Your task to perform on an android device: delete the emails in spam in the gmail app Image 0: 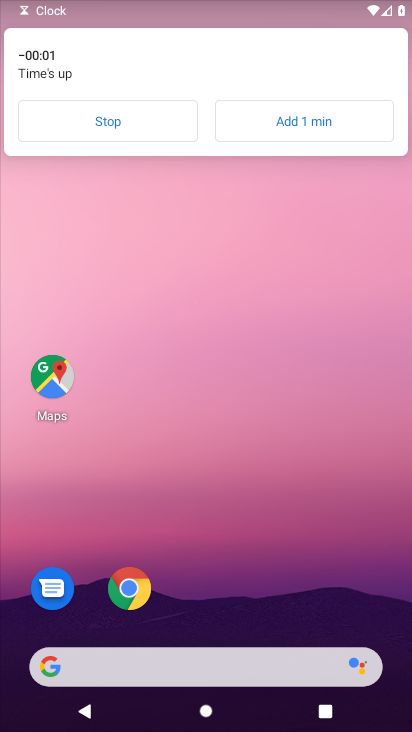
Step 0: drag from (186, 593) to (229, 274)
Your task to perform on an android device: delete the emails in spam in the gmail app Image 1: 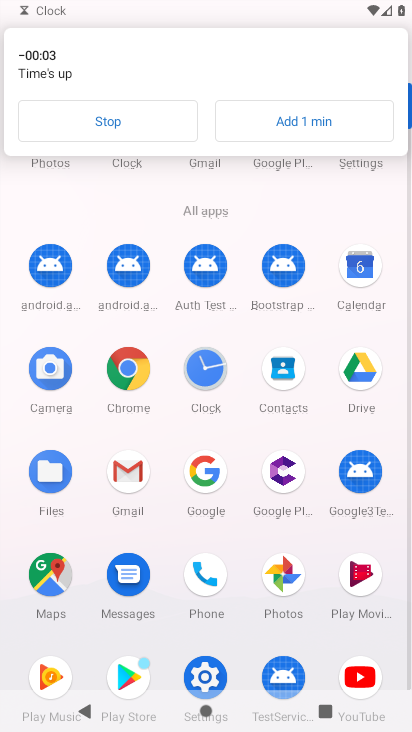
Step 1: click (147, 137)
Your task to perform on an android device: delete the emails in spam in the gmail app Image 2: 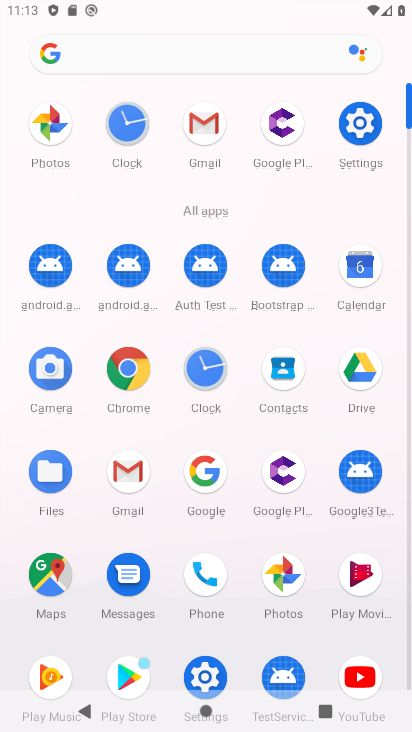
Step 2: click (119, 472)
Your task to perform on an android device: delete the emails in spam in the gmail app Image 3: 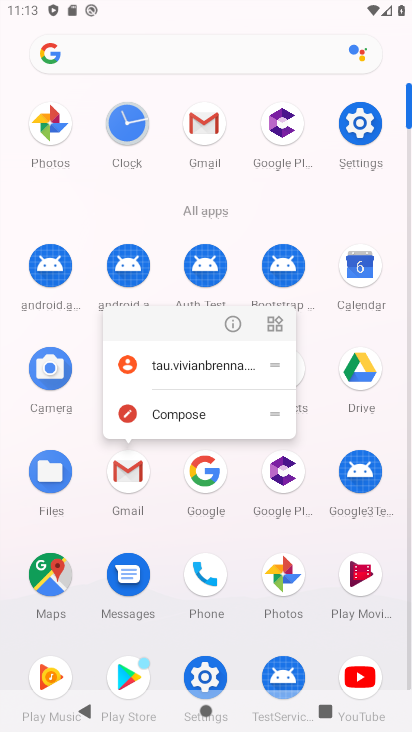
Step 3: click (230, 323)
Your task to perform on an android device: delete the emails in spam in the gmail app Image 4: 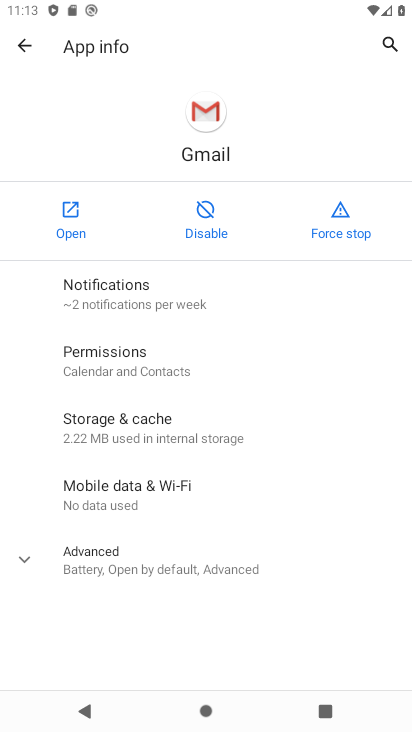
Step 4: click (67, 215)
Your task to perform on an android device: delete the emails in spam in the gmail app Image 5: 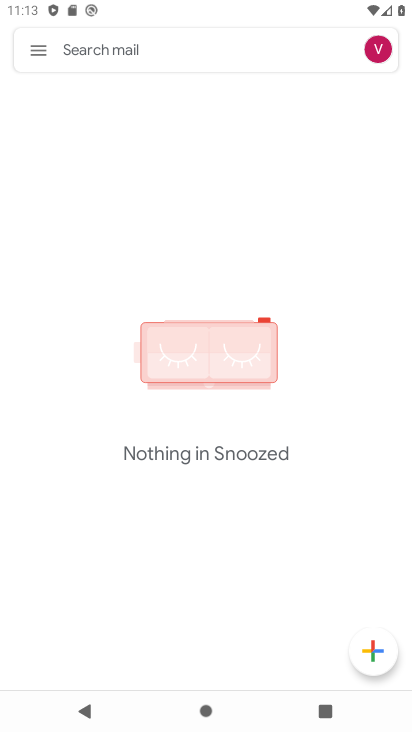
Step 5: click (42, 52)
Your task to perform on an android device: delete the emails in spam in the gmail app Image 6: 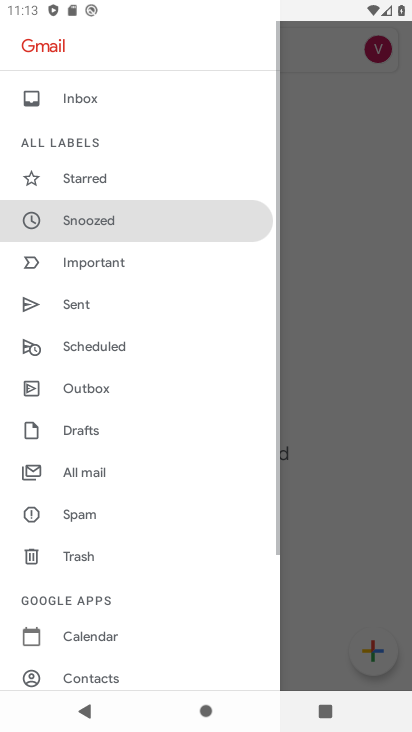
Step 6: drag from (129, 613) to (269, 185)
Your task to perform on an android device: delete the emails in spam in the gmail app Image 7: 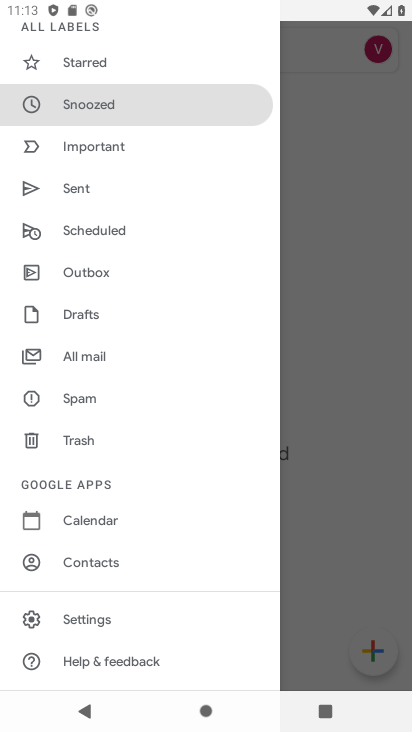
Step 7: click (94, 404)
Your task to perform on an android device: delete the emails in spam in the gmail app Image 8: 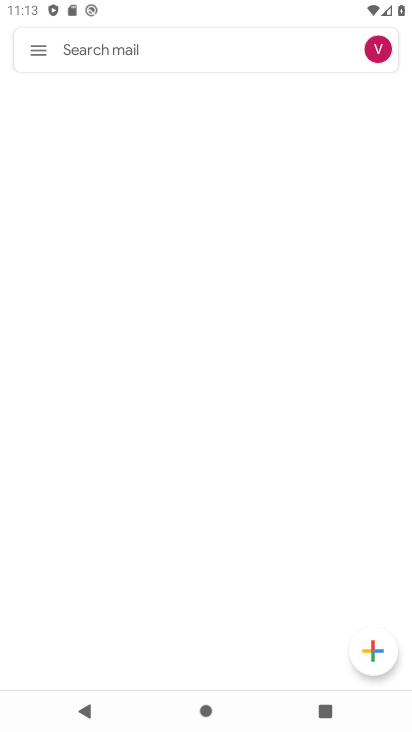
Step 8: drag from (131, 561) to (204, 183)
Your task to perform on an android device: delete the emails in spam in the gmail app Image 9: 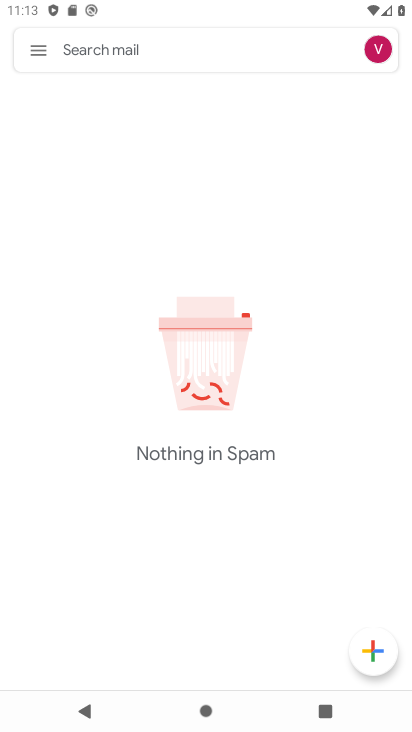
Step 9: drag from (228, 527) to (242, 402)
Your task to perform on an android device: delete the emails in spam in the gmail app Image 10: 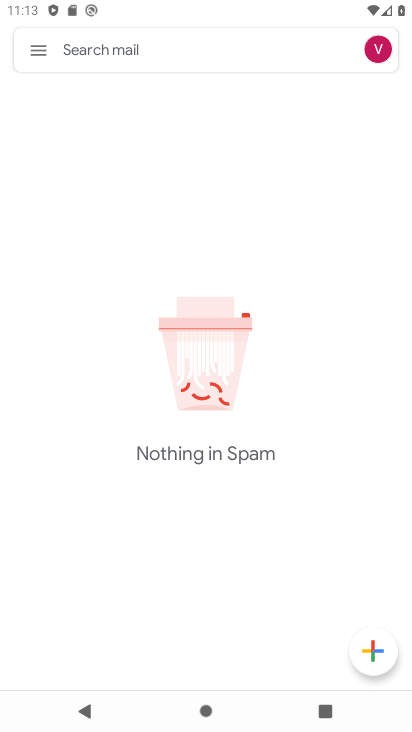
Step 10: click (30, 40)
Your task to perform on an android device: delete the emails in spam in the gmail app Image 11: 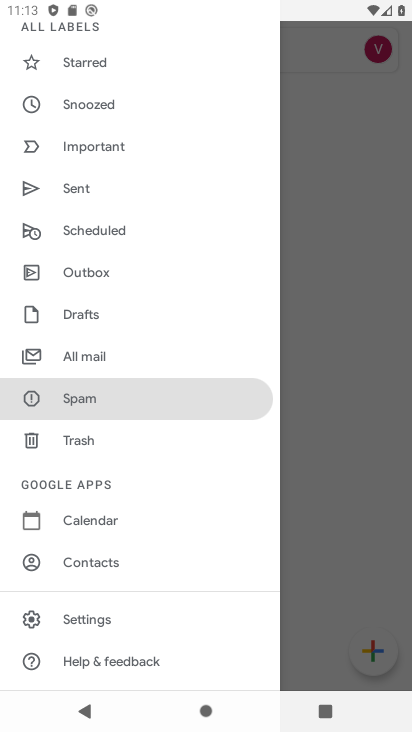
Step 11: task complete